Your task to perform on an android device: turn vacation reply on in the gmail app Image 0: 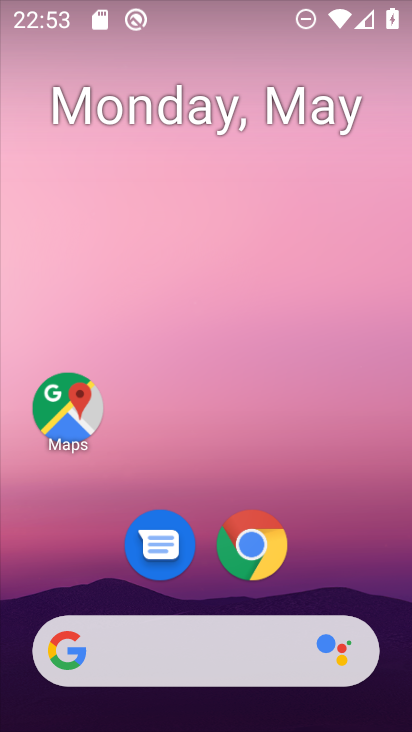
Step 0: drag from (325, 546) to (224, 15)
Your task to perform on an android device: turn vacation reply on in the gmail app Image 1: 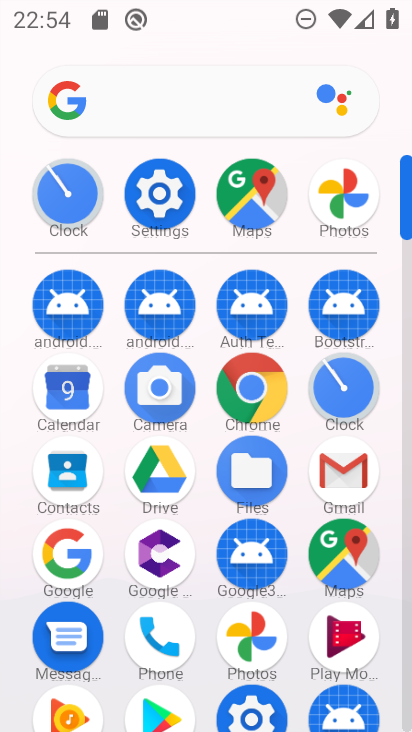
Step 1: click (351, 460)
Your task to perform on an android device: turn vacation reply on in the gmail app Image 2: 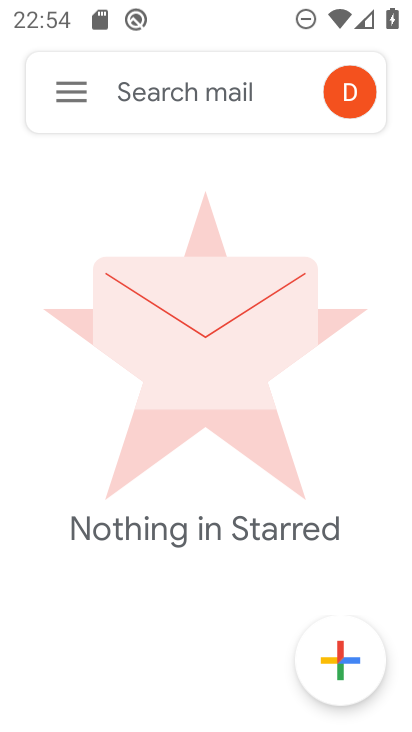
Step 2: click (68, 86)
Your task to perform on an android device: turn vacation reply on in the gmail app Image 3: 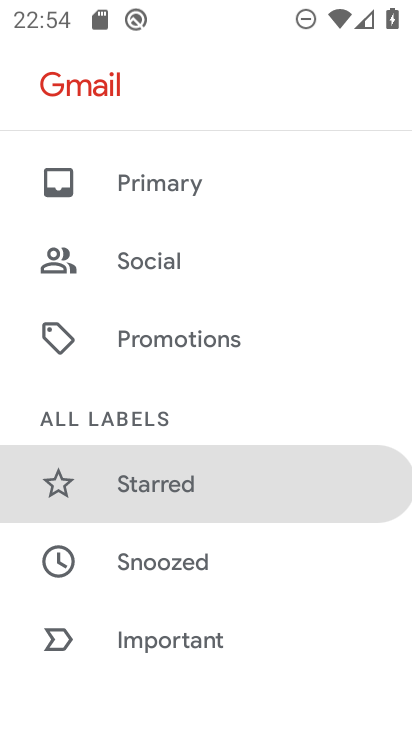
Step 3: drag from (235, 578) to (214, 180)
Your task to perform on an android device: turn vacation reply on in the gmail app Image 4: 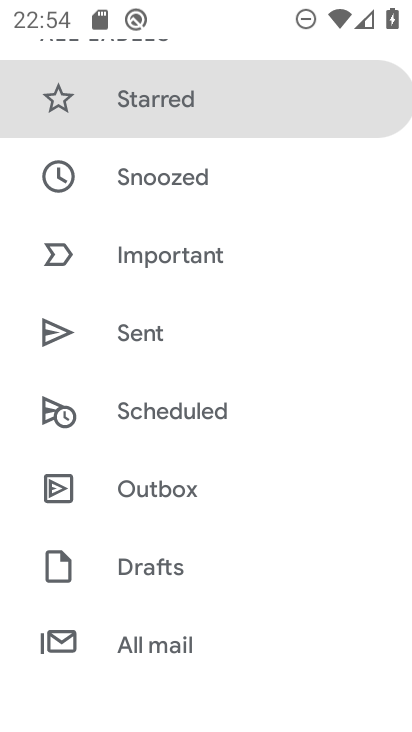
Step 4: click (187, 130)
Your task to perform on an android device: turn vacation reply on in the gmail app Image 5: 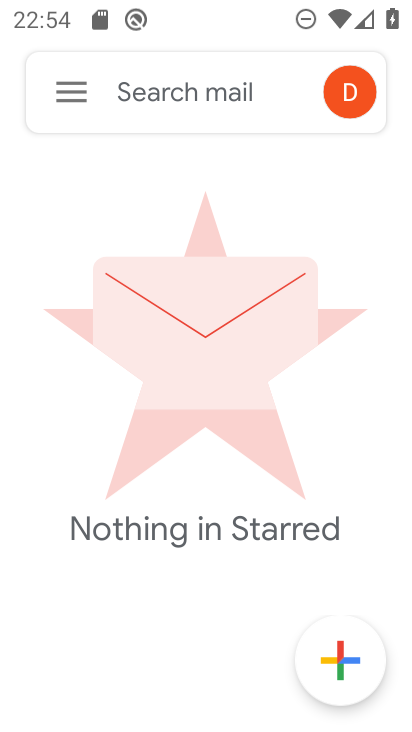
Step 5: click (70, 83)
Your task to perform on an android device: turn vacation reply on in the gmail app Image 6: 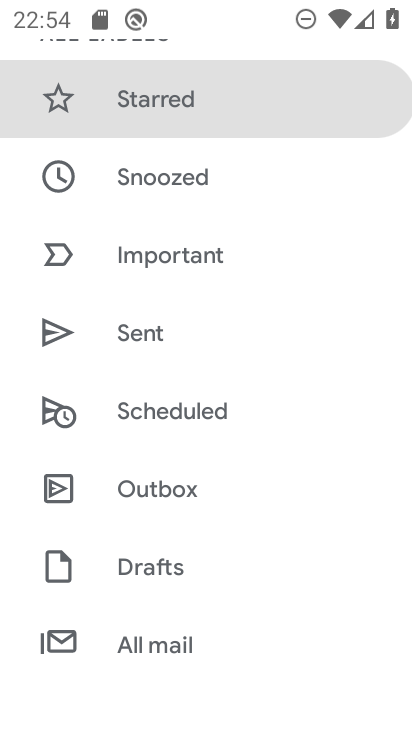
Step 6: drag from (192, 597) to (236, 96)
Your task to perform on an android device: turn vacation reply on in the gmail app Image 7: 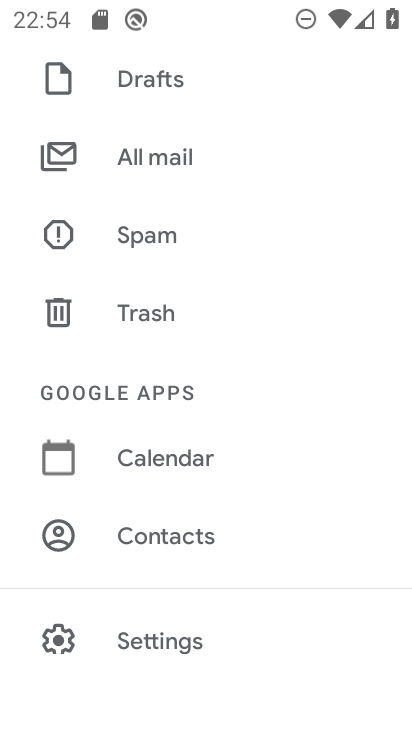
Step 7: drag from (217, 560) to (238, 121)
Your task to perform on an android device: turn vacation reply on in the gmail app Image 8: 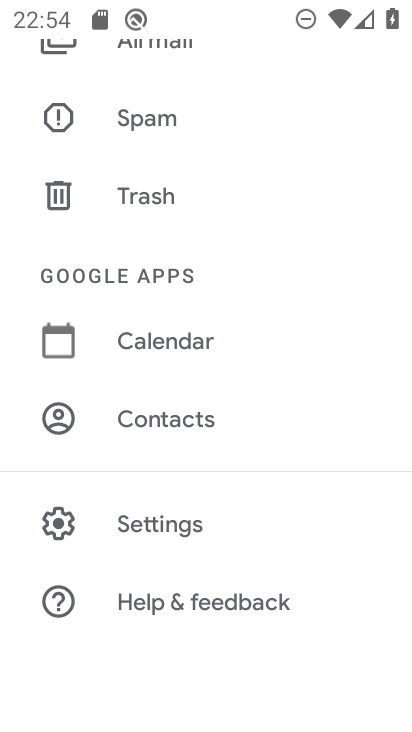
Step 8: click (158, 531)
Your task to perform on an android device: turn vacation reply on in the gmail app Image 9: 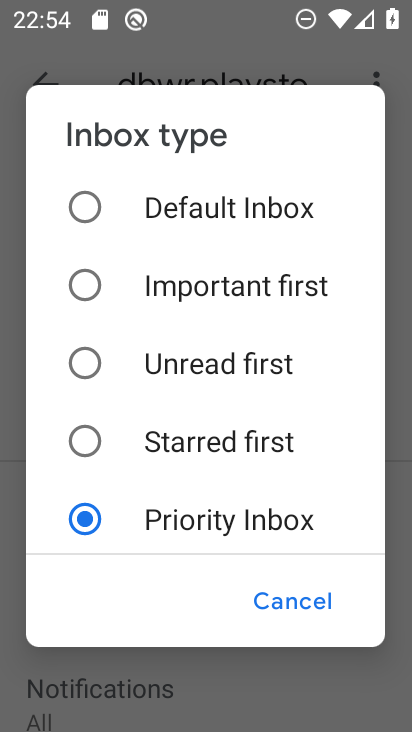
Step 9: click (296, 598)
Your task to perform on an android device: turn vacation reply on in the gmail app Image 10: 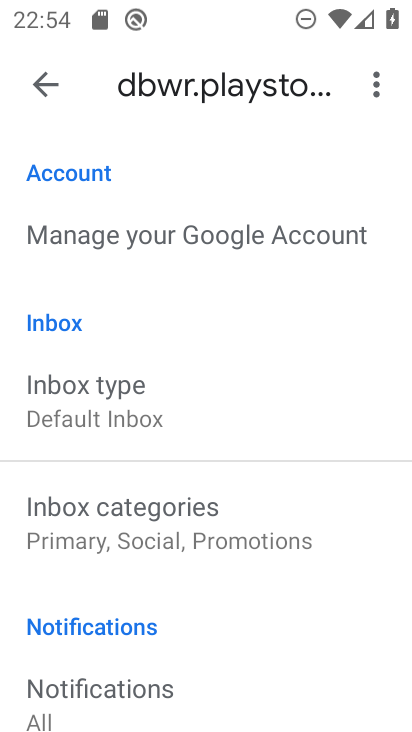
Step 10: drag from (209, 588) to (210, 99)
Your task to perform on an android device: turn vacation reply on in the gmail app Image 11: 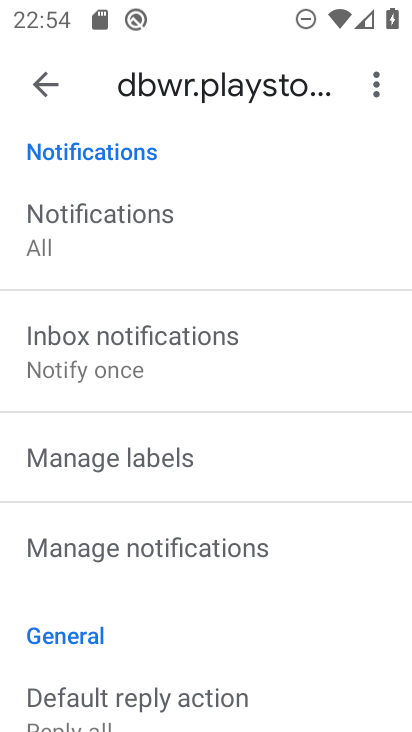
Step 11: drag from (230, 599) to (227, 100)
Your task to perform on an android device: turn vacation reply on in the gmail app Image 12: 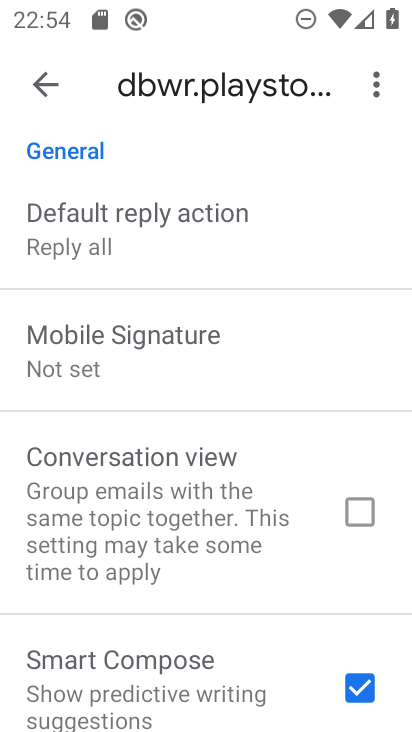
Step 12: drag from (225, 586) to (229, 181)
Your task to perform on an android device: turn vacation reply on in the gmail app Image 13: 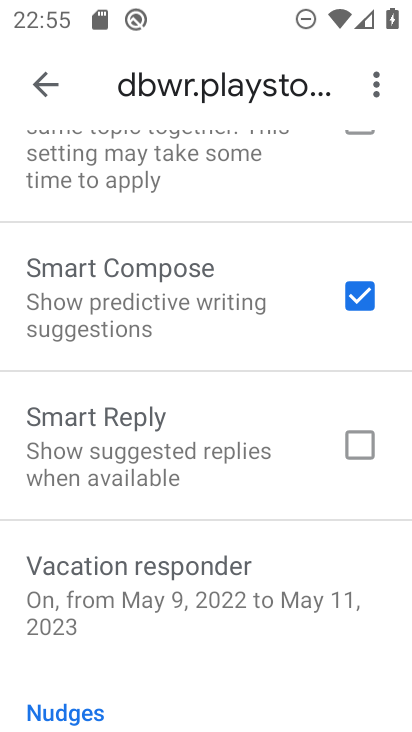
Step 13: click (211, 575)
Your task to perform on an android device: turn vacation reply on in the gmail app Image 14: 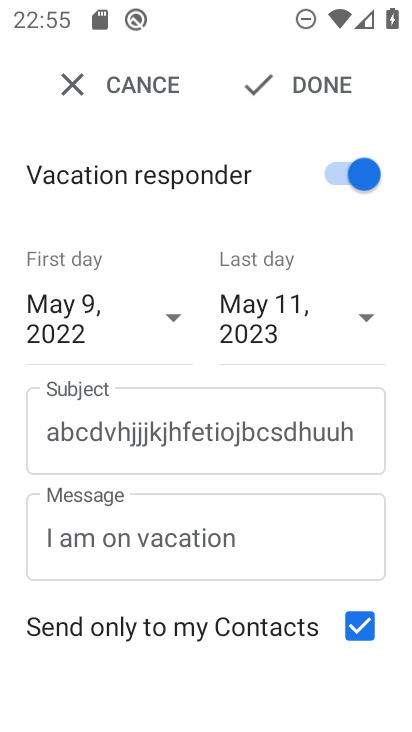
Step 14: task complete